Your task to perform on an android device: turn off airplane mode Image 0: 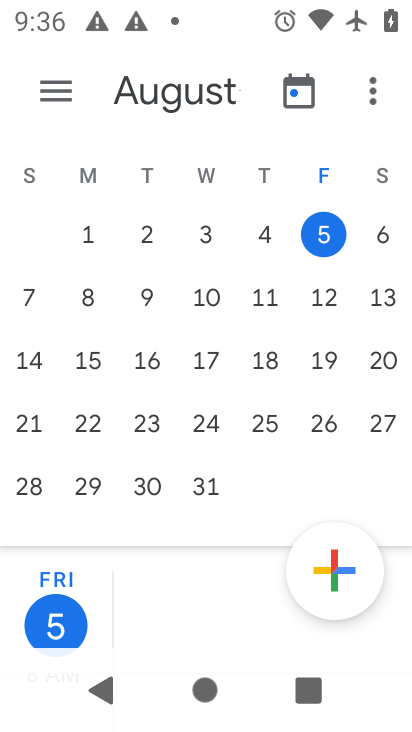
Step 0: press home button
Your task to perform on an android device: turn off airplane mode Image 1: 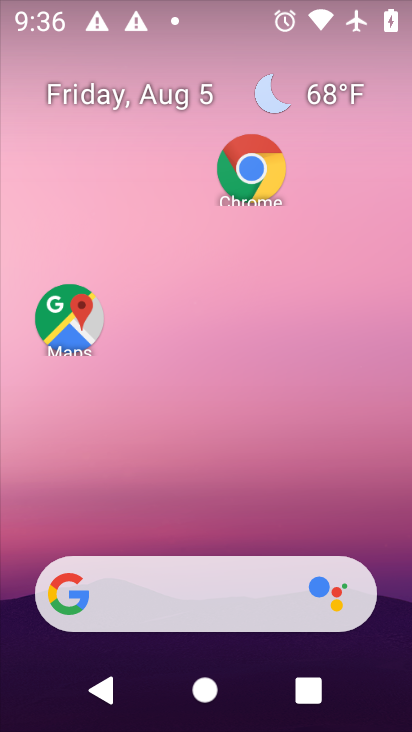
Step 1: drag from (205, 542) to (160, 540)
Your task to perform on an android device: turn off airplane mode Image 2: 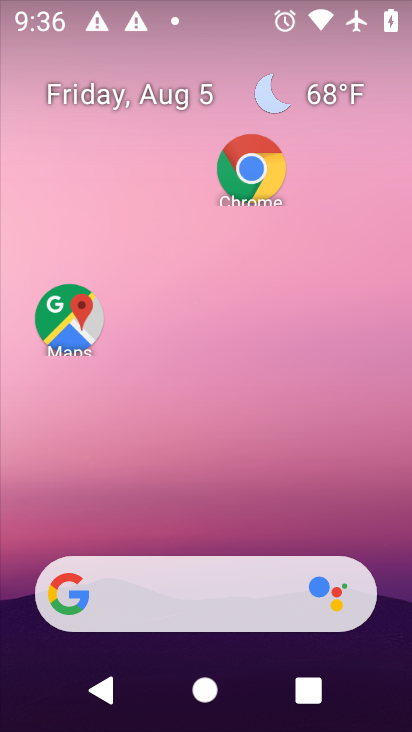
Step 2: drag from (200, 523) to (218, 137)
Your task to perform on an android device: turn off airplane mode Image 3: 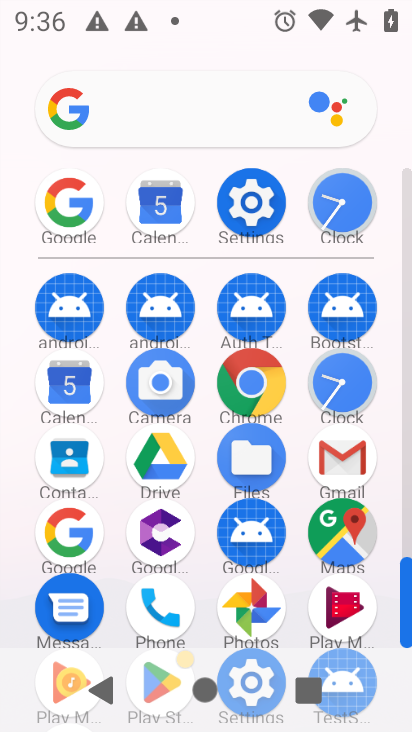
Step 3: click (247, 183)
Your task to perform on an android device: turn off airplane mode Image 4: 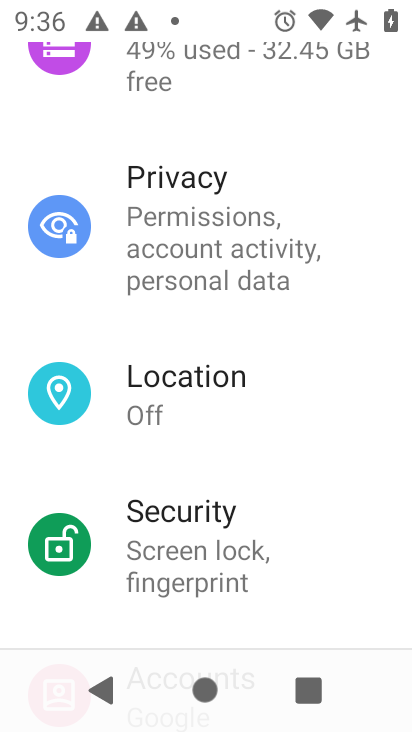
Step 4: drag from (238, 151) to (239, 641)
Your task to perform on an android device: turn off airplane mode Image 5: 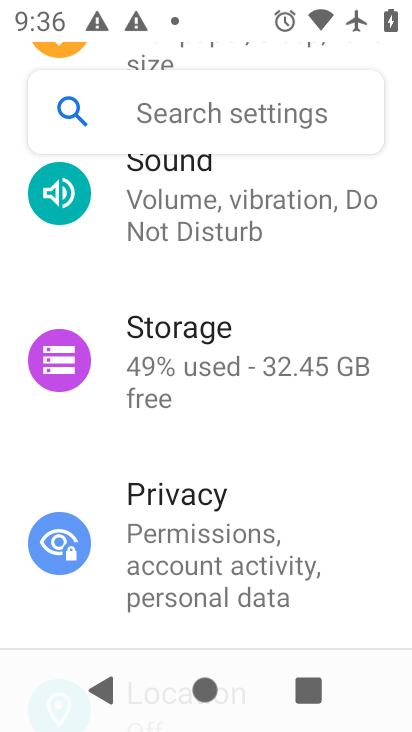
Step 5: drag from (232, 246) to (242, 614)
Your task to perform on an android device: turn off airplane mode Image 6: 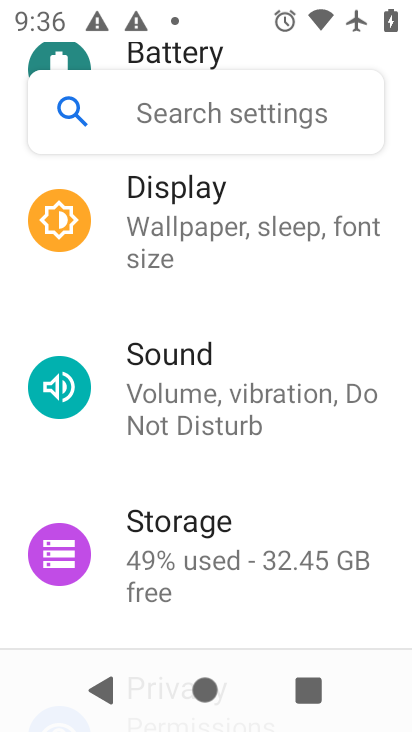
Step 6: drag from (219, 217) to (252, 508)
Your task to perform on an android device: turn off airplane mode Image 7: 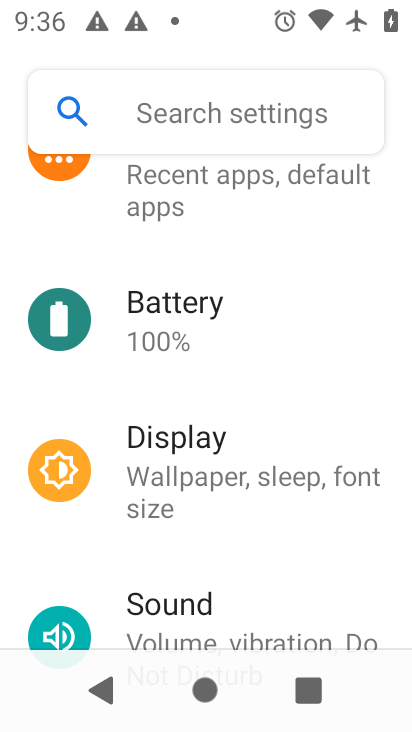
Step 7: drag from (262, 192) to (262, 547)
Your task to perform on an android device: turn off airplane mode Image 8: 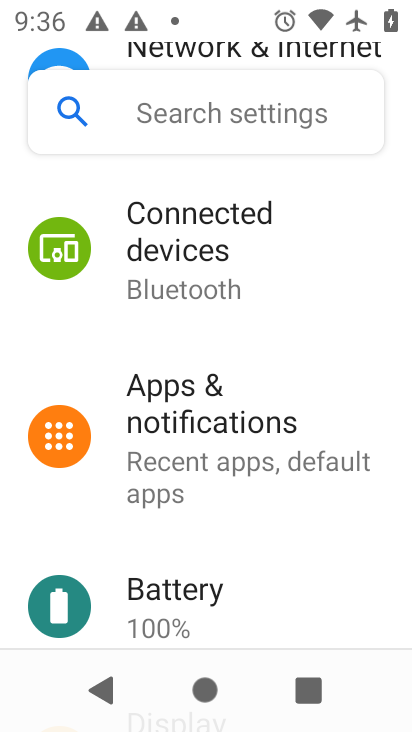
Step 8: drag from (200, 225) to (242, 525)
Your task to perform on an android device: turn off airplane mode Image 9: 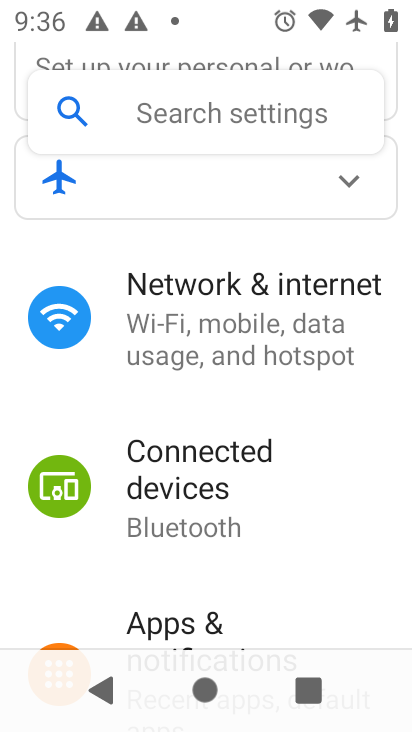
Step 9: click (243, 258)
Your task to perform on an android device: turn off airplane mode Image 10: 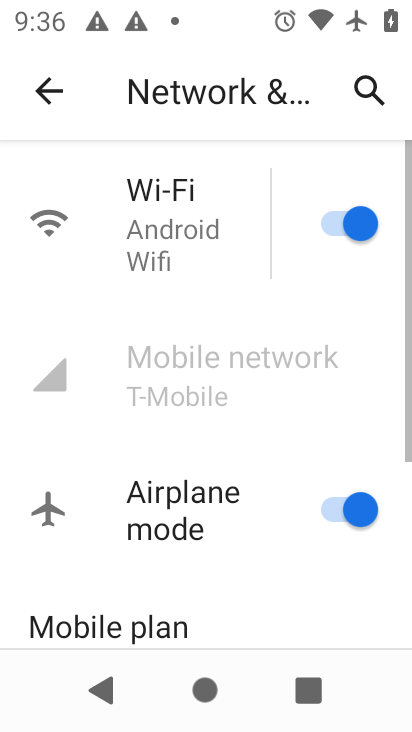
Step 10: click (330, 495)
Your task to perform on an android device: turn off airplane mode Image 11: 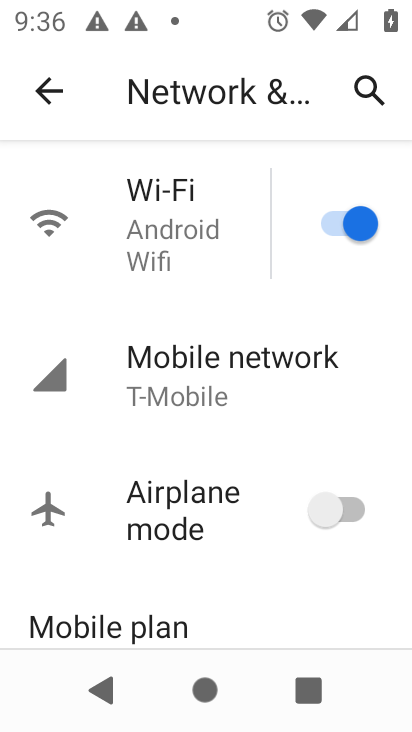
Step 11: click (326, 229)
Your task to perform on an android device: turn off airplane mode Image 12: 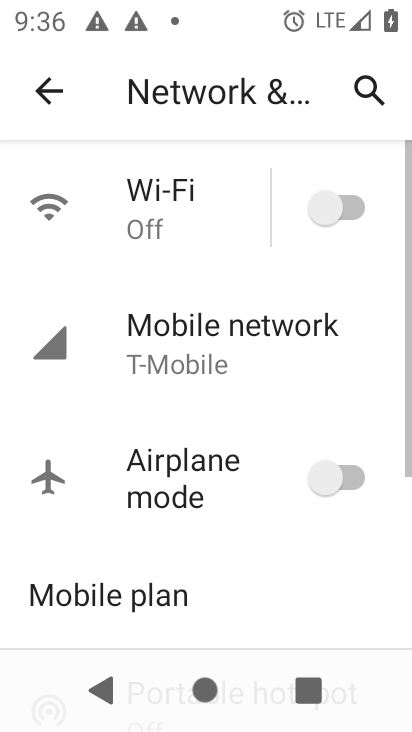
Step 12: click (346, 190)
Your task to perform on an android device: turn off airplane mode Image 13: 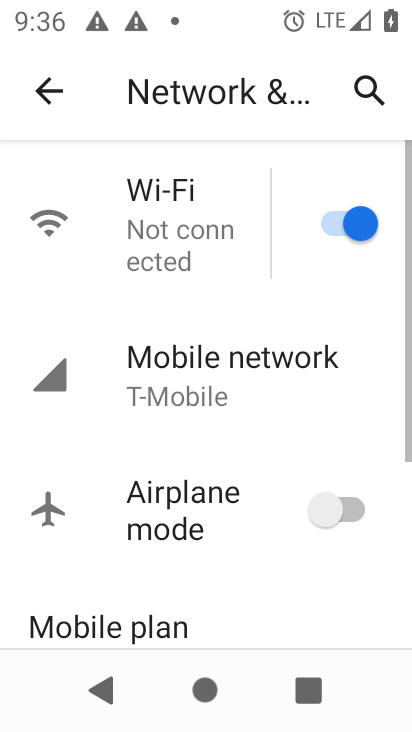
Step 13: task complete